Your task to perform on an android device: Check the news Image 0: 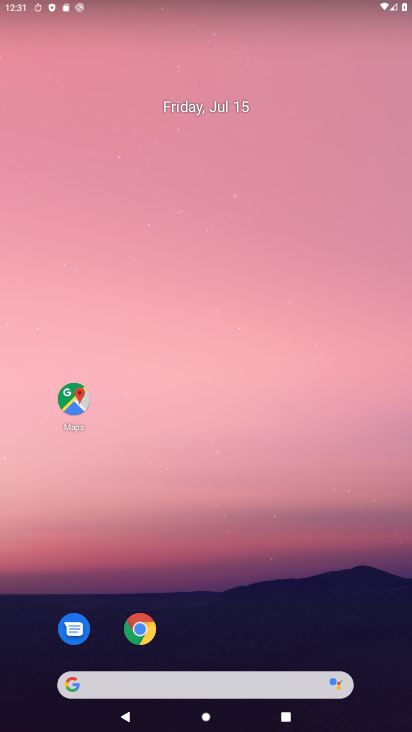
Step 0: drag from (195, 589) to (256, 50)
Your task to perform on an android device: Check the news Image 1: 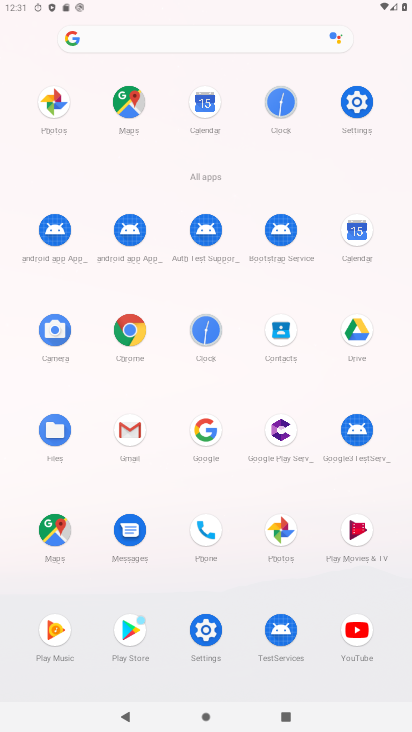
Step 1: click (217, 32)
Your task to perform on an android device: Check the news Image 2: 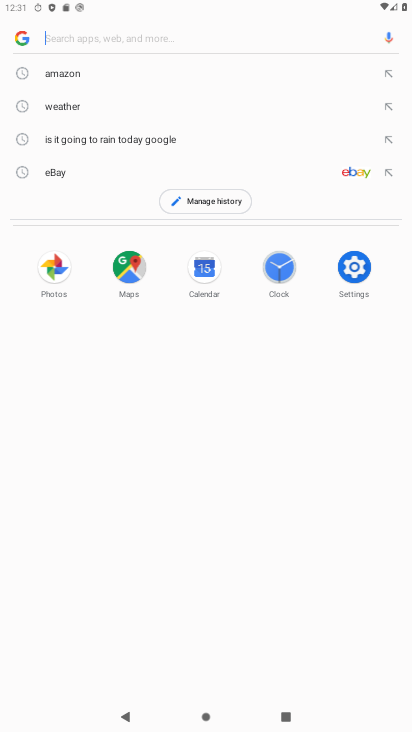
Step 2: type "news"
Your task to perform on an android device: Check the news Image 3: 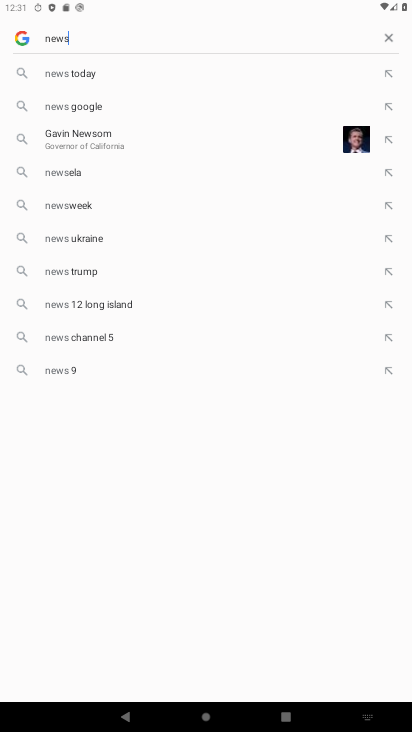
Step 3: click (95, 76)
Your task to perform on an android device: Check the news Image 4: 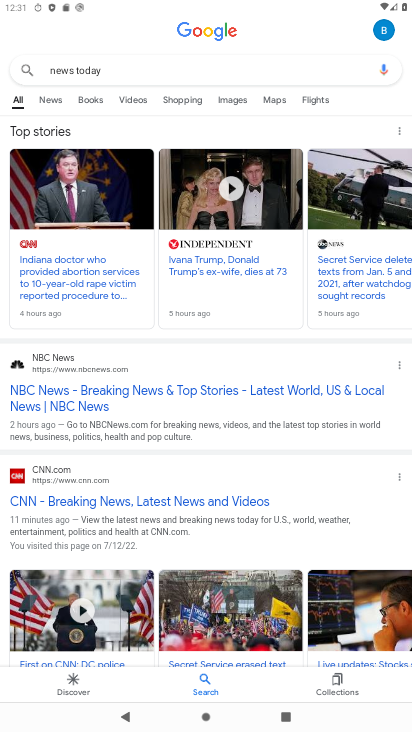
Step 4: task complete